Your task to perform on an android device: turn on priority inbox in the gmail app Image 0: 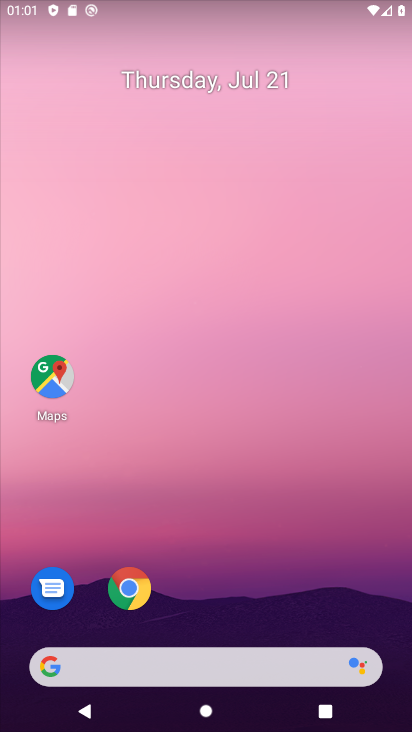
Step 0: press home button
Your task to perform on an android device: turn on priority inbox in the gmail app Image 1: 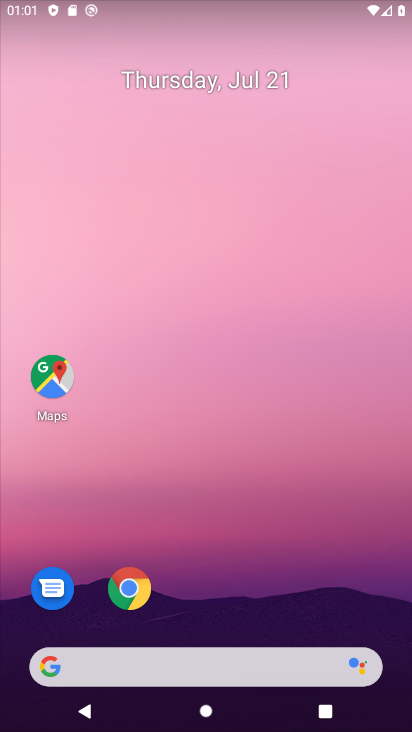
Step 1: drag from (304, 493) to (394, 311)
Your task to perform on an android device: turn on priority inbox in the gmail app Image 2: 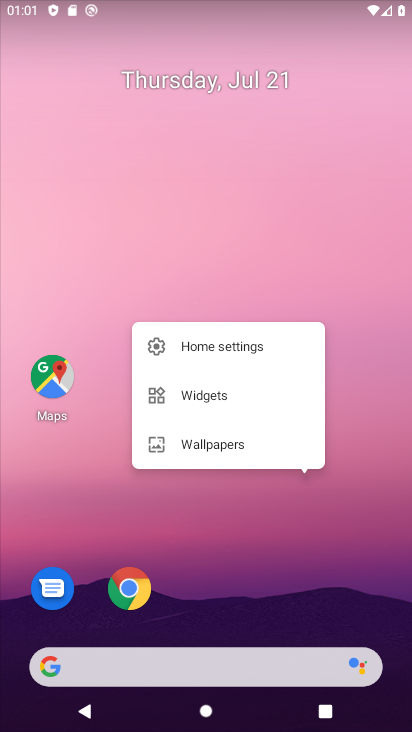
Step 2: click (362, 373)
Your task to perform on an android device: turn on priority inbox in the gmail app Image 3: 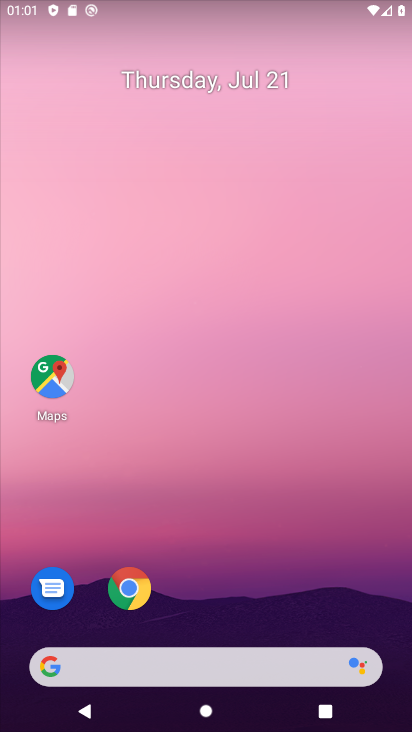
Step 3: drag from (323, 429) to (411, 34)
Your task to perform on an android device: turn on priority inbox in the gmail app Image 4: 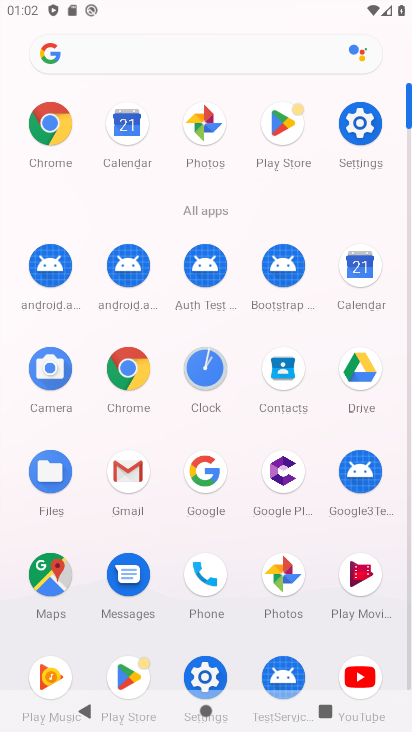
Step 4: click (131, 471)
Your task to perform on an android device: turn on priority inbox in the gmail app Image 5: 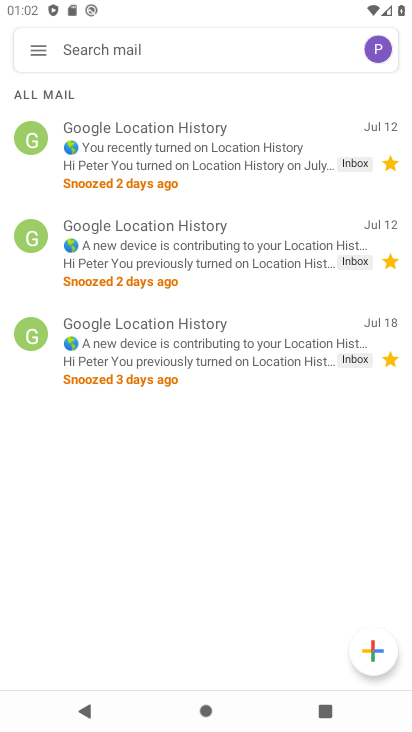
Step 5: click (45, 64)
Your task to perform on an android device: turn on priority inbox in the gmail app Image 6: 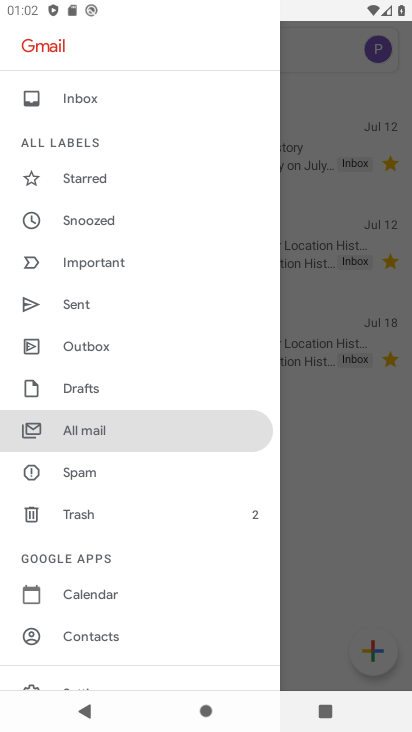
Step 6: drag from (53, 371) to (126, 167)
Your task to perform on an android device: turn on priority inbox in the gmail app Image 7: 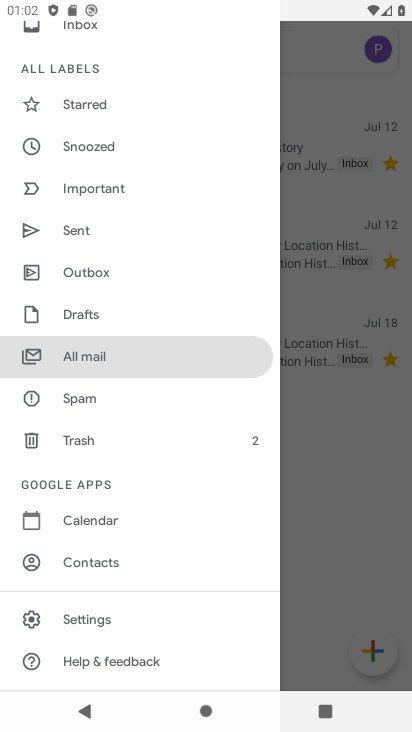
Step 7: click (72, 612)
Your task to perform on an android device: turn on priority inbox in the gmail app Image 8: 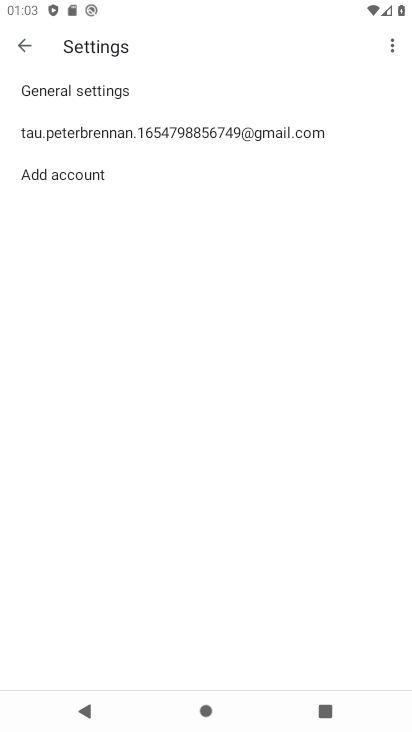
Step 8: click (111, 122)
Your task to perform on an android device: turn on priority inbox in the gmail app Image 9: 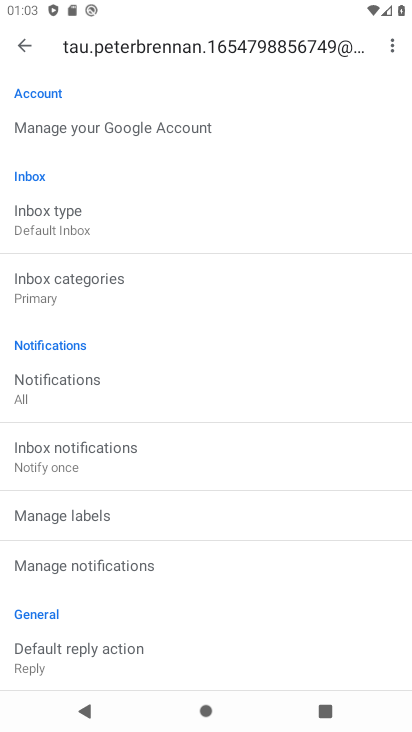
Step 9: click (127, 221)
Your task to perform on an android device: turn on priority inbox in the gmail app Image 10: 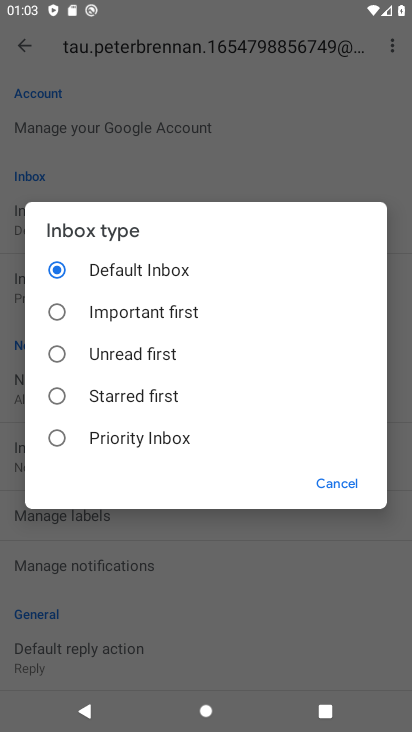
Step 10: click (153, 439)
Your task to perform on an android device: turn on priority inbox in the gmail app Image 11: 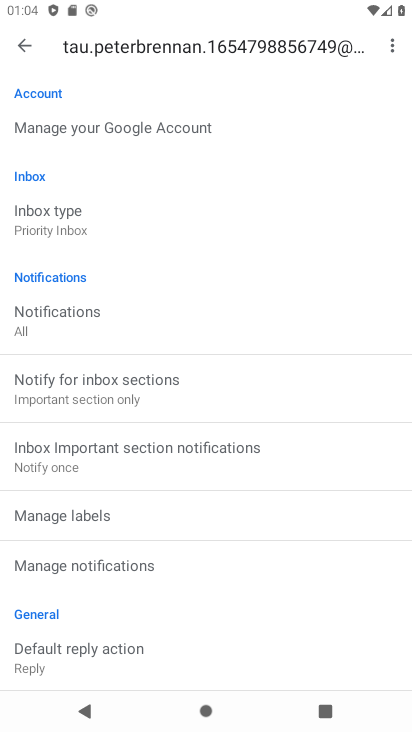
Step 11: task complete